Your task to perform on an android device: open wifi settings Image 0: 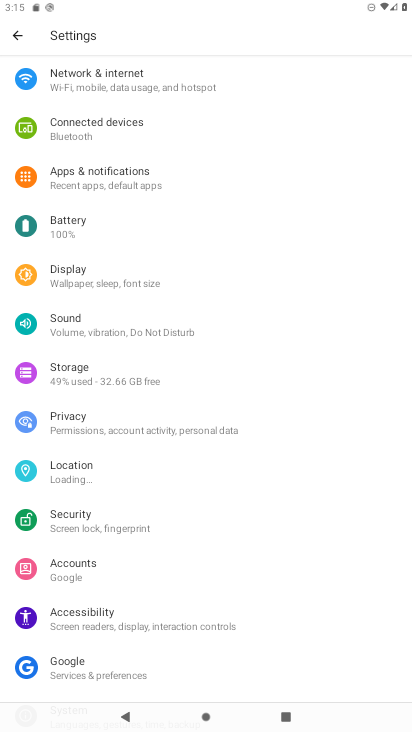
Step 0: click (160, 84)
Your task to perform on an android device: open wifi settings Image 1: 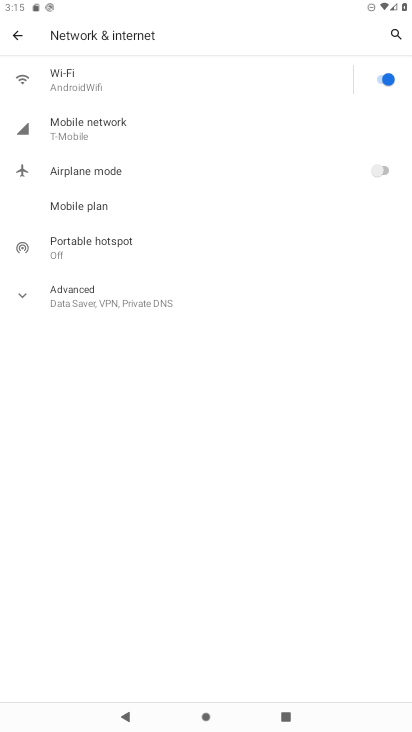
Step 1: click (28, 81)
Your task to perform on an android device: open wifi settings Image 2: 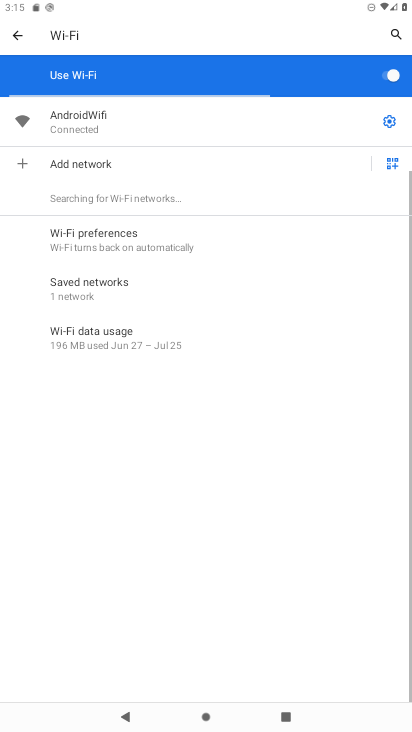
Step 2: task complete